Your task to perform on an android device: Go to location settings Image 0: 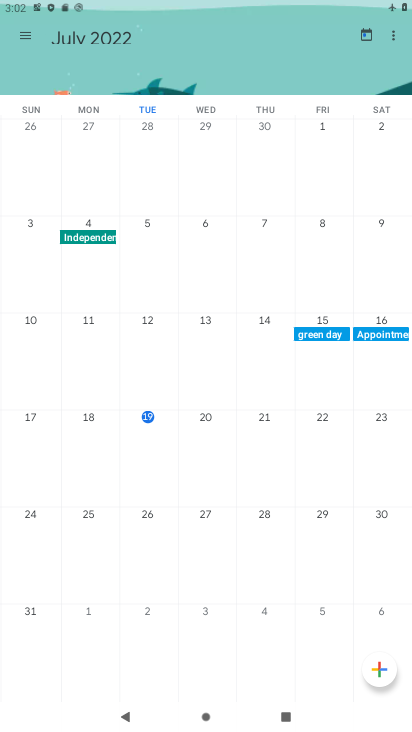
Step 0: press home button
Your task to perform on an android device: Go to location settings Image 1: 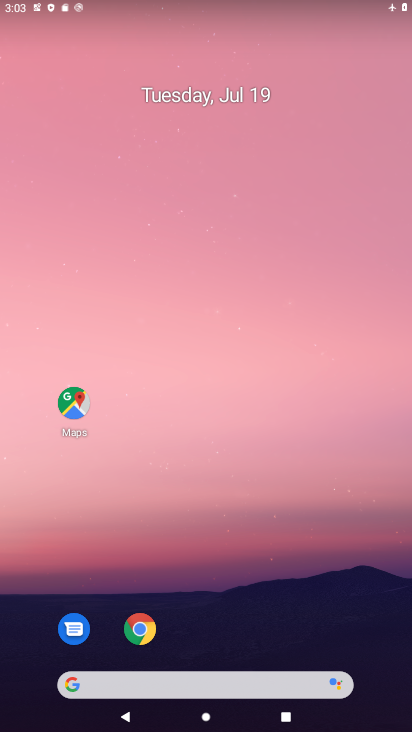
Step 1: drag from (195, 689) to (125, 64)
Your task to perform on an android device: Go to location settings Image 2: 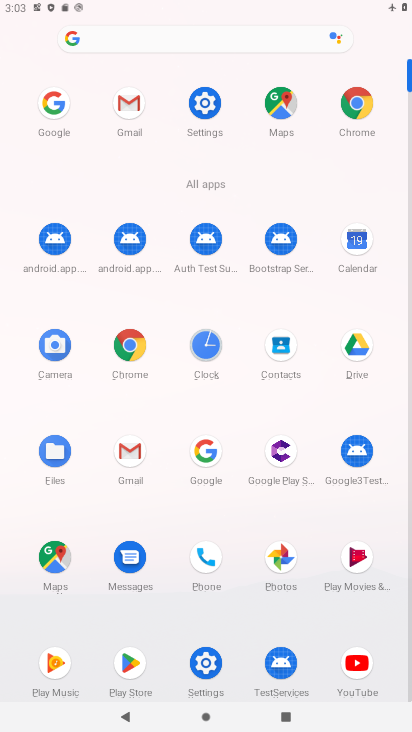
Step 2: click (213, 96)
Your task to perform on an android device: Go to location settings Image 3: 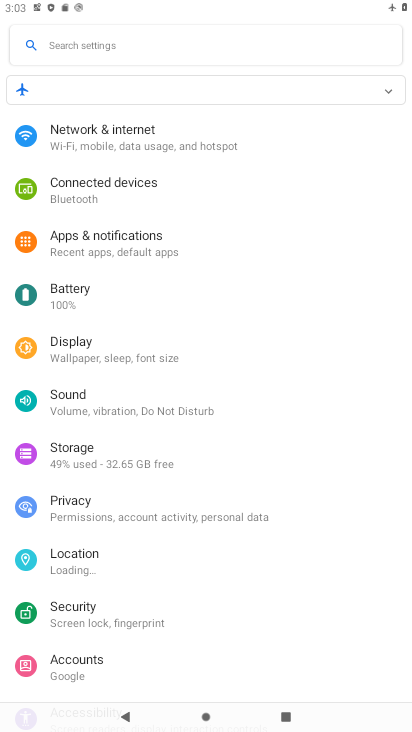
Step 3: click (71, 558)
Your task to perform on an android device: Go to location settings Image 4: 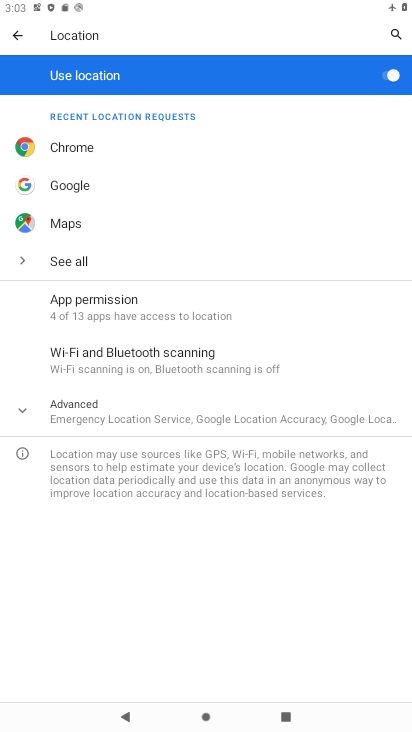
Step 4: task complete